Your task to perform on an android device: Search for razer thresher on amazon, select the first entry, and add it to the cart. Image 0: 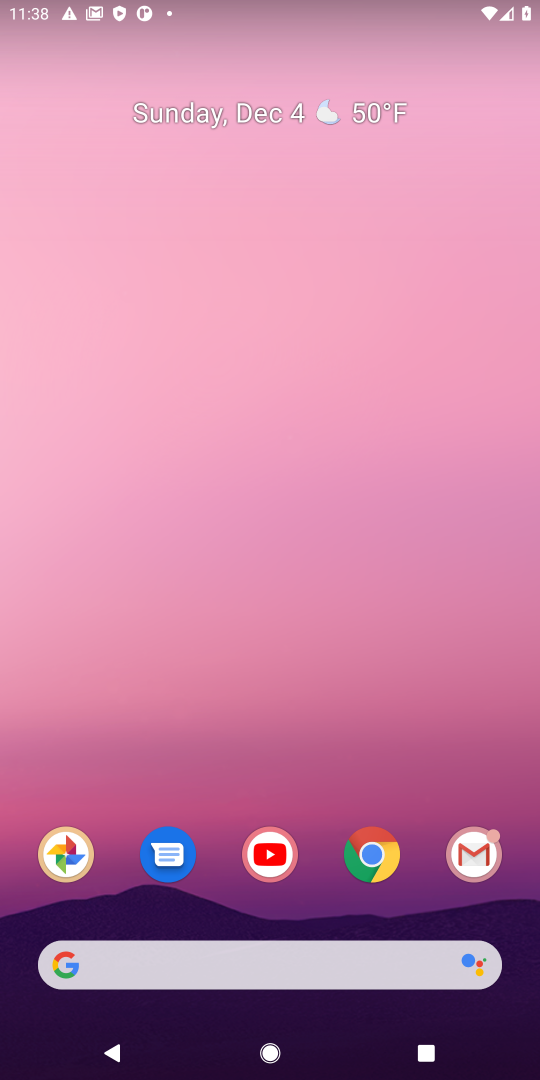
Step 0: click (218, 967)
Your task to perform on an android device: Search for razer thresher on amazon, select the first entry, and add it to the cart. Image 1: 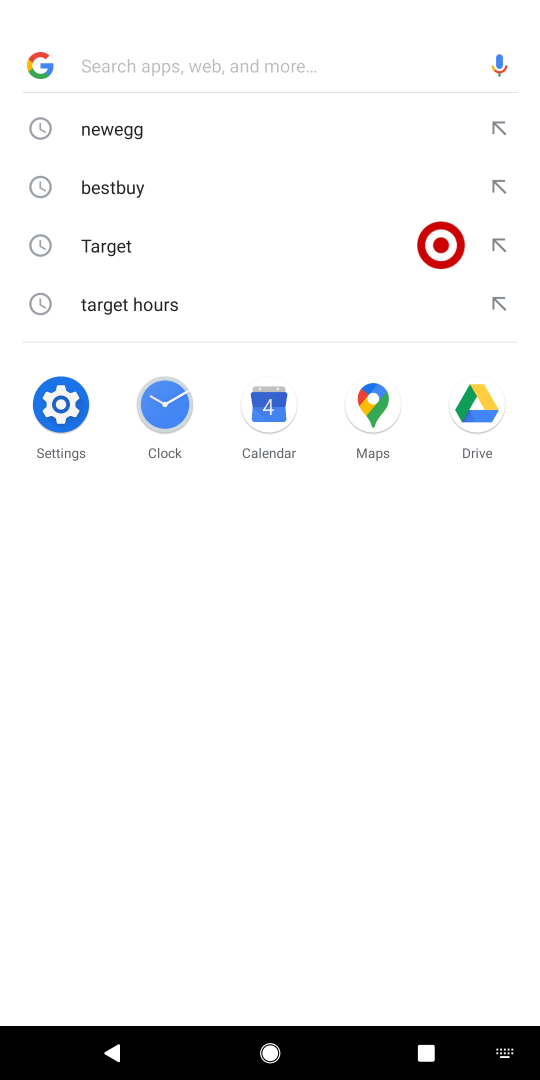
Step 1: type "amazon"
Your task to perform on an android device: Search for razer thresher on amazon, select the first entry, and add it to the cart. Image 2: 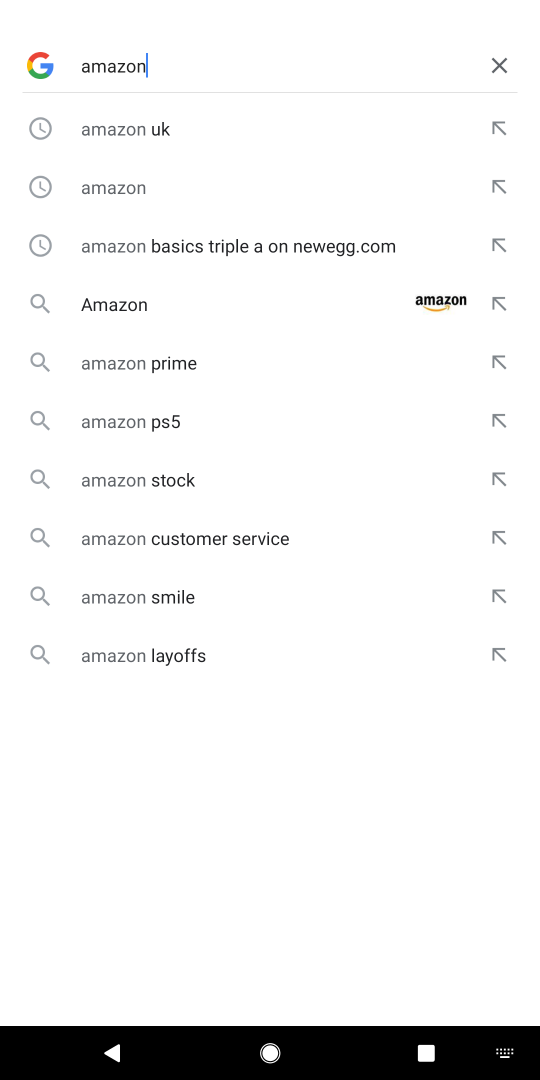
Step 2: click (95, 324)
Your task to perform on an android device: Search for razer thresher on amazon, select the first entry, and add it to the cart. Image 3: 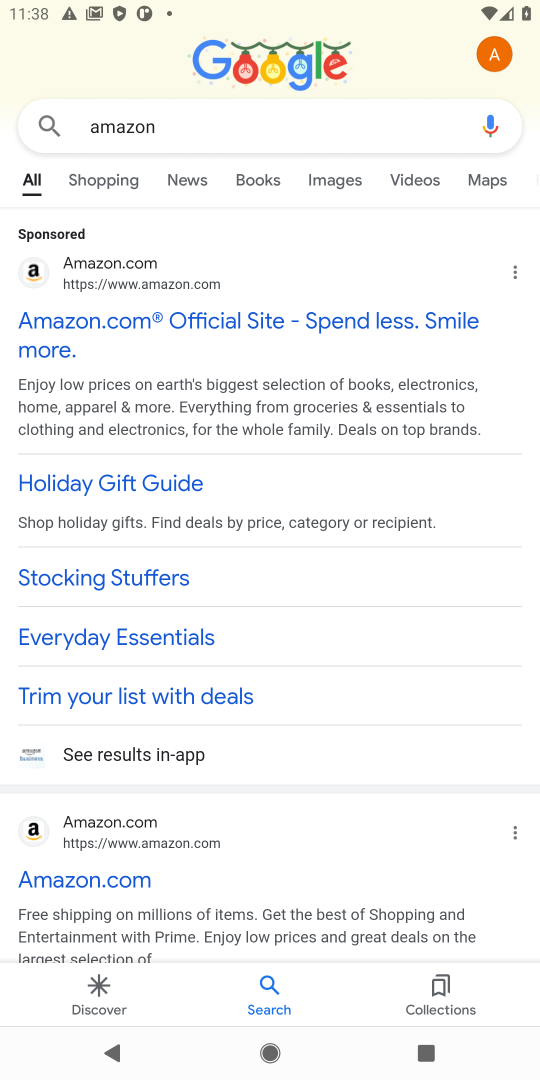
Step 3: click (138, 357)
Your task to perform on an android device: Search for razer thresher on amazon, select the first entry, and add it to the cart. Image 4: 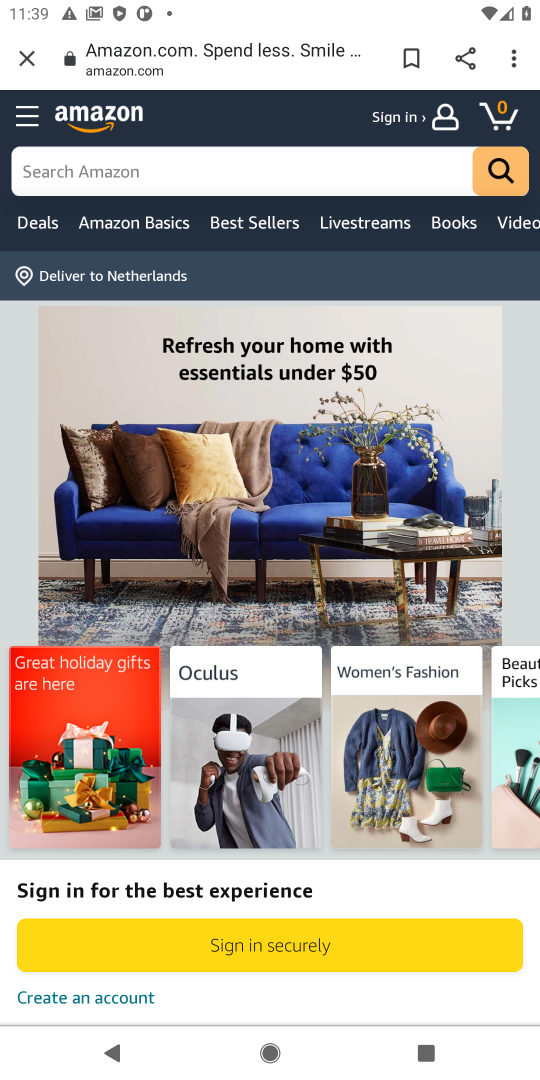
Step 4: task complete